Your task to perform on an android device: search for outdoor chairs on article.com Image 0: 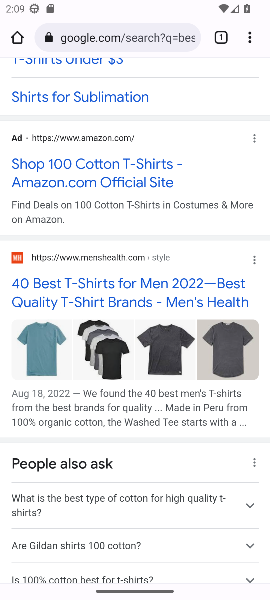
Step 0: click (154, 32)
Your task to perform on an android device: search for outdoor chairs on article.com Image 1: 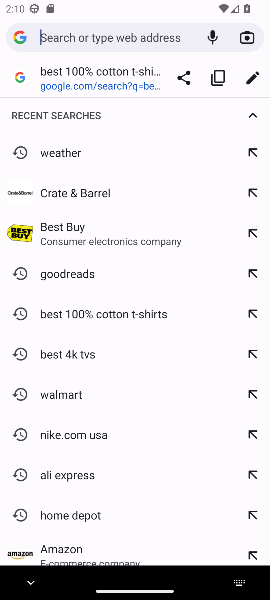
Step 1: type "article.com"
Your task to perform on an android device: search for outdoor chairs on article.com Image 2: 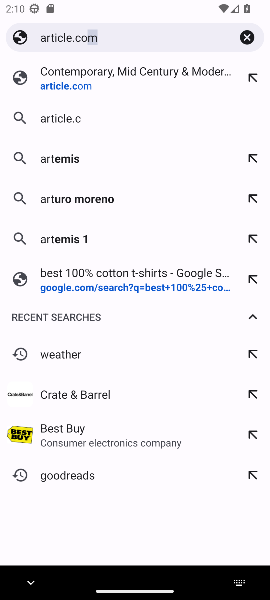
Step 2: press enter
Your task to perform on an android device: search for outdoor chairs on article.com Image 3: 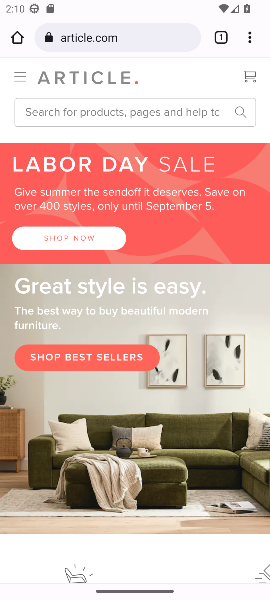
Step 3: click (147, 115)
Your task to perform on an android device: search for outdoor chairs on article.com Image 4: 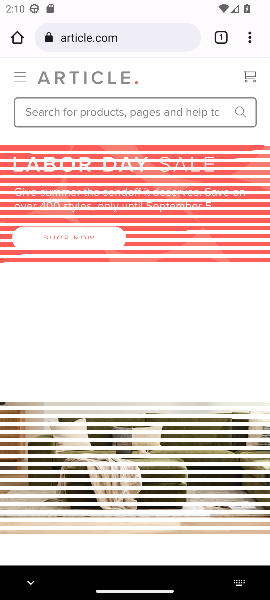
Step 4: click (147, 115)
Your task to perform on an android device: search for outdoor chairs on article.com Image 5: 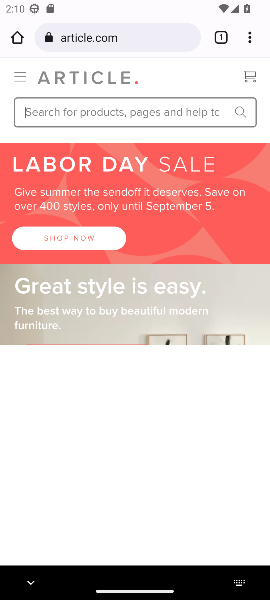
Step 5: type "outdoor chairs"
Your task to perform on an android device: search for outdoor chairs on article.com Image 6: 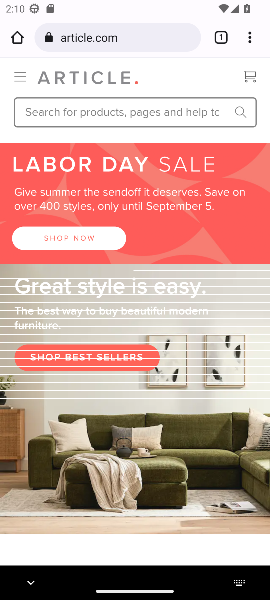
Step 6: press enter
Your task to perform on an android device: search for outdoor chairs on article.com Image 7: 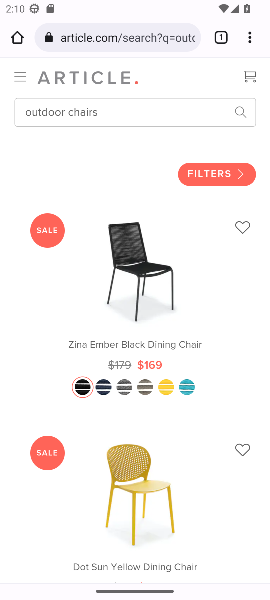
Step 7: task complete